Your task to perform on an android device: manage bookmarks in the chrome app Image 0: 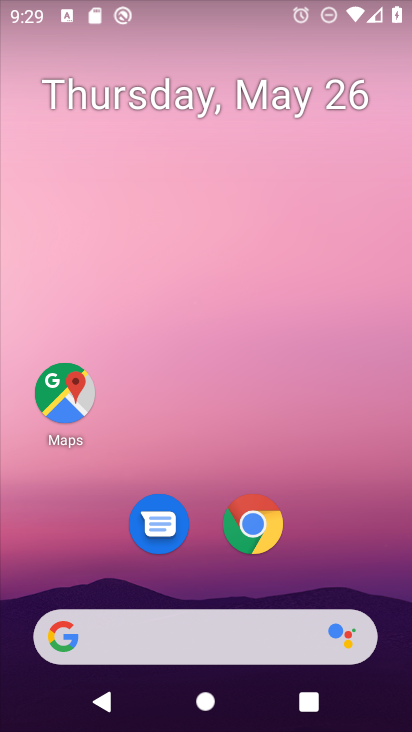
Step 0: click (248, 530)
Your task to perform on an android device: manage bookmarks in the chrome app Image 1: 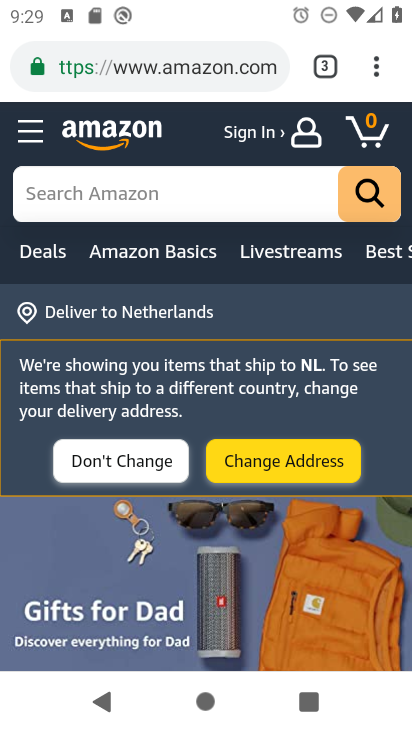
Step 1: click (377, 64)
Your task to perform on an android device: manage bookmarks in the chrome app Image 2: 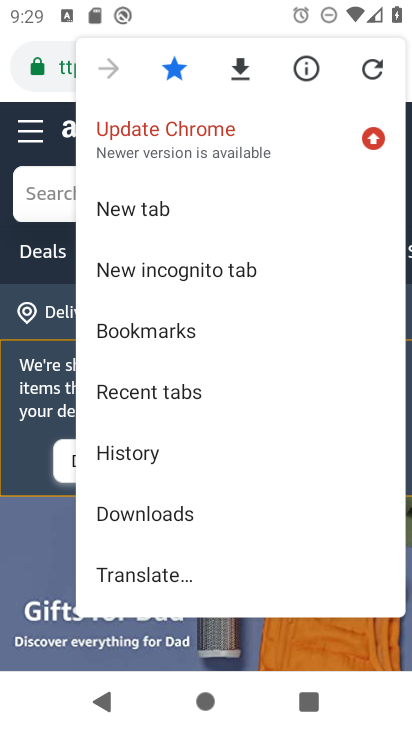
Step 2: click (163, 319)
Your task to perform on an android device: manage bookmarks in the chrome app Image 3: 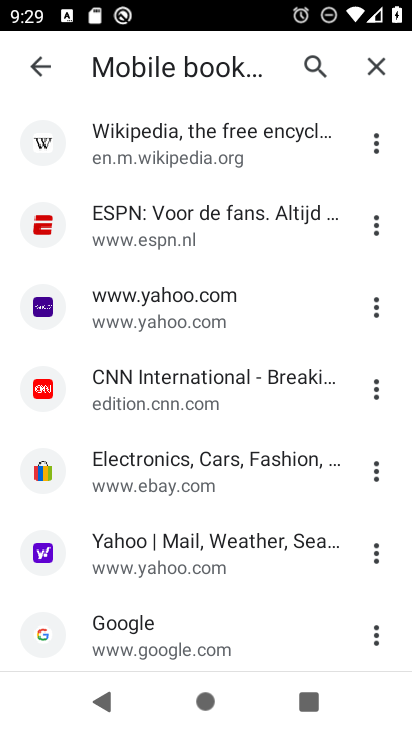
Step 3: click (372, 309)
Your task to perform on an android device: manage bookmarks in the chrome app Image 4: 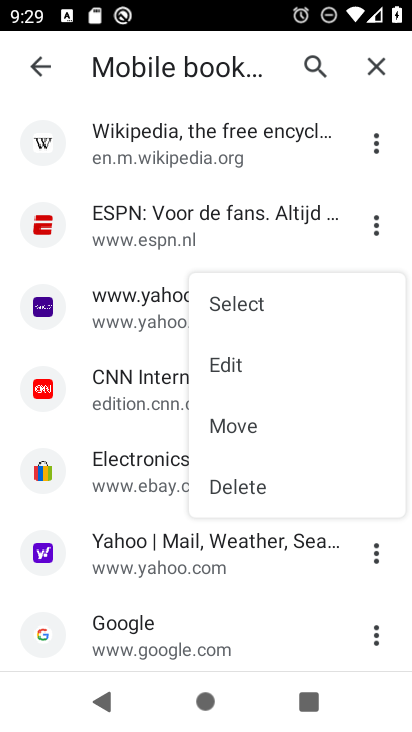
Step 4: click (296, 365)
Your task to perform on an android device: manage bookmarks in the chrome app Image 5: 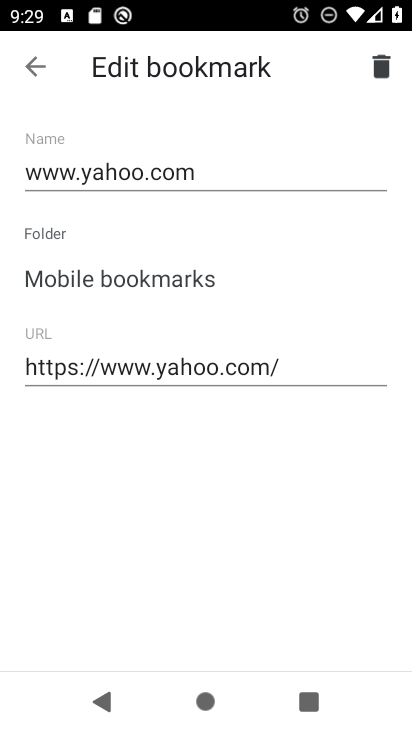
Step 5: click (36, 63)
Your task to perform on an android device: manage bookmarks in the chrome app Image 6: 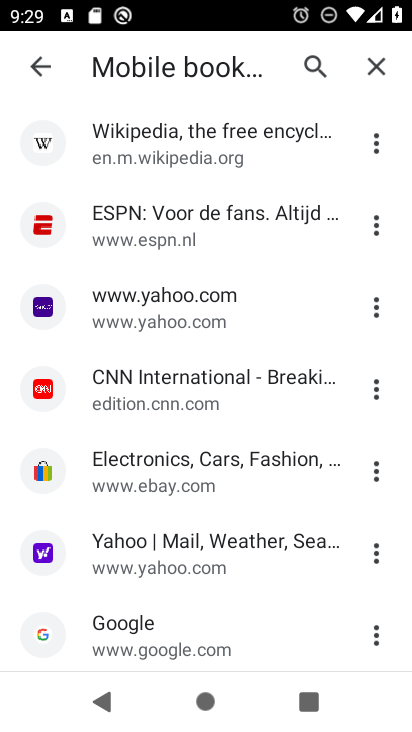
Step 6: click (36, 62)
Your task to perform on an android device: manage bookmarks in the chrome app Image 7: 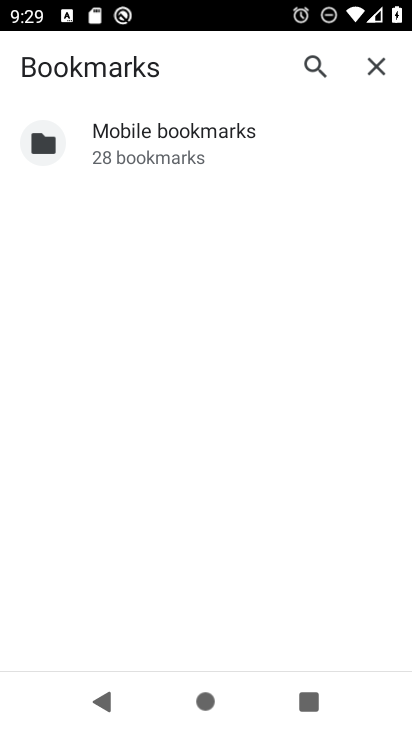
Step 7: task complete